Your task to perform on an android device: open chrome and create a bookmark for the current page Image 0: 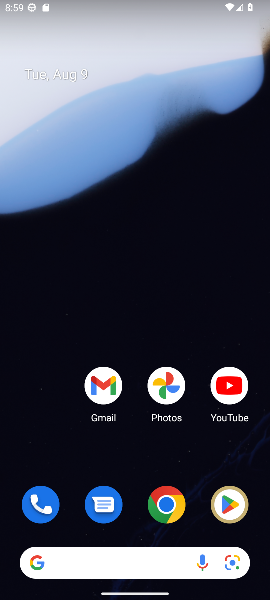
Step 0: click (170, 504)
Your task to perform on an android device: open chrome and create a bookmark for the current page Image 1: 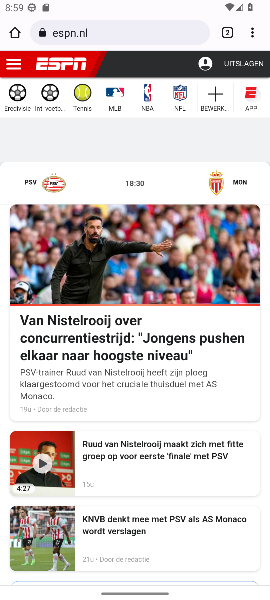
Step 1: click (251, 27)
Your task to perform on an android device: open chrome and create a bookmark for the current page Image 2: 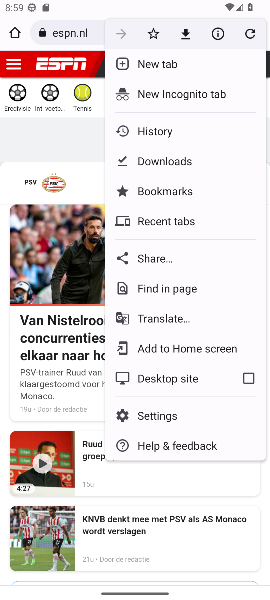
Step 2: click (149, 34)
Your task to perform on an android device: open chrome and create a bookmark for the current page Image 3: 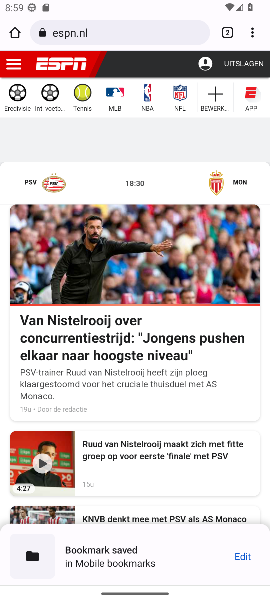
Step 3: task complete